Your task to perform on an android device: check battery use Image 0: 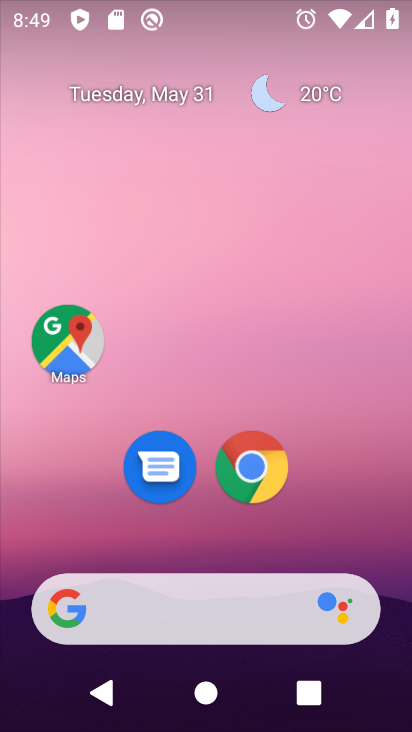
Step 0: drag from (194, 525) to (214, 126)
Your task to perform on an android device: check battery use Image 1: 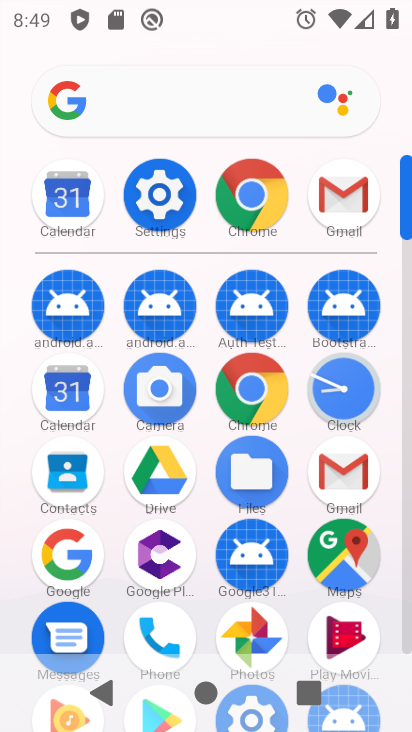
Step 1: click (123, 179)
Your task to perform on an android device: check battery use Image 2: 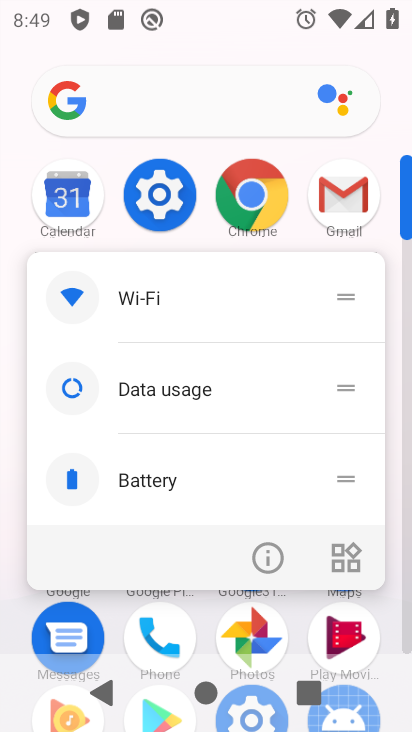
Step 2: click (176, 482)
Your task to perform on an android device: check battery use Image 3: 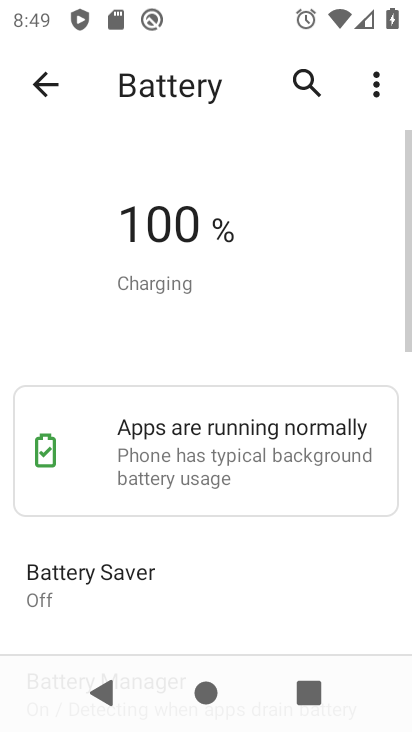
Step 3: click (385, 97)
Your task to perform on an android device: check battery use Image 4: 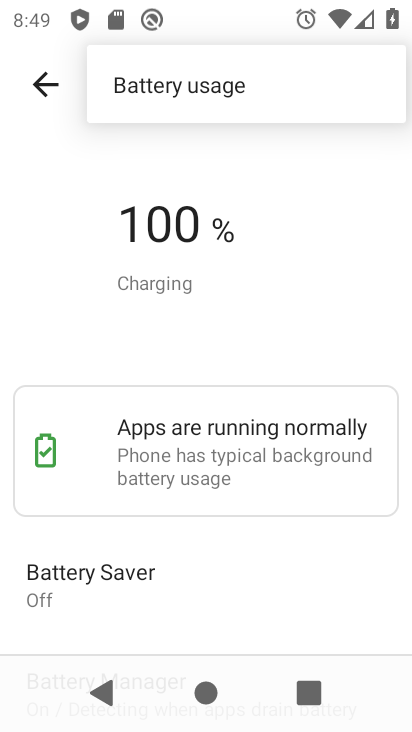
Step 4: click (251, 75)
Your task to perform on an android device: check battery use Image 5: 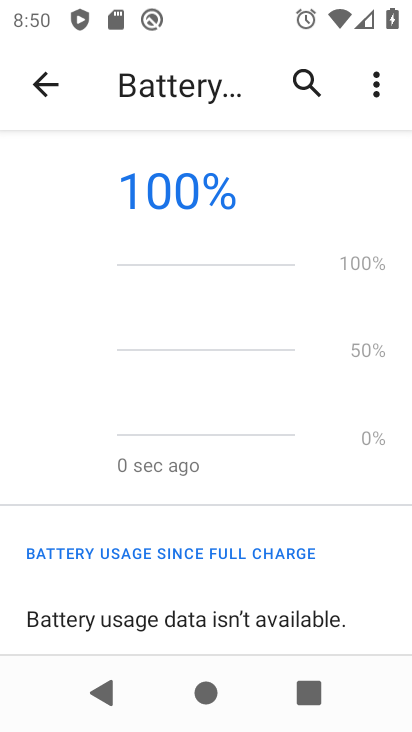
Step 5: click (391, 94)
Your task to perform on an android device: check battery use Image 6: 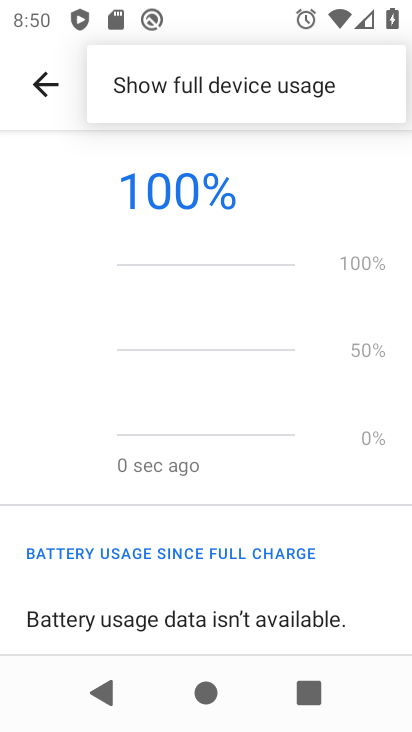
Step 6: task complete